Your task to perform on an android device: Open Amazon Image 0: 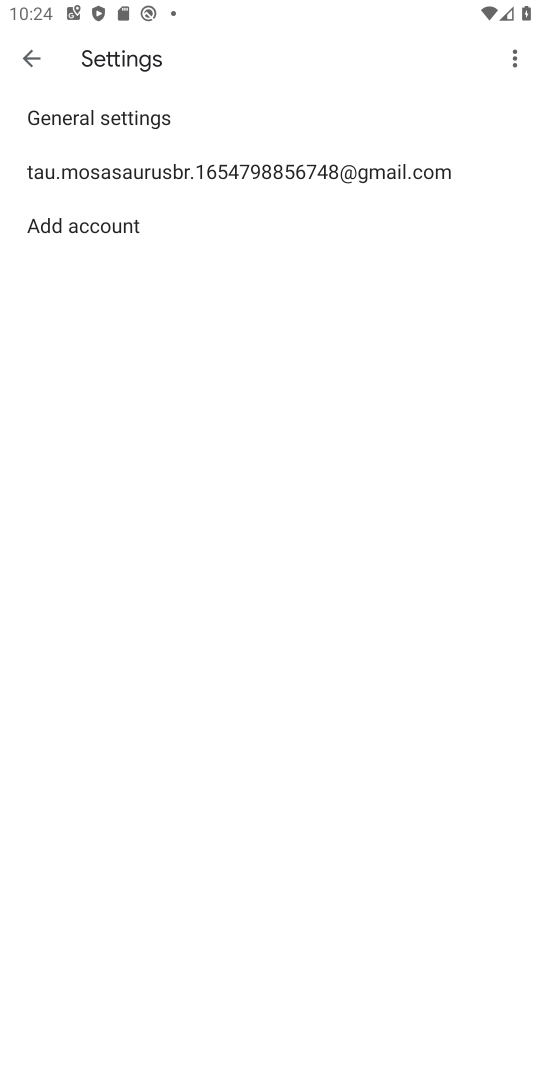
Step 0: press home button
Your task to perform on an android device: Open Amazon Image 1: 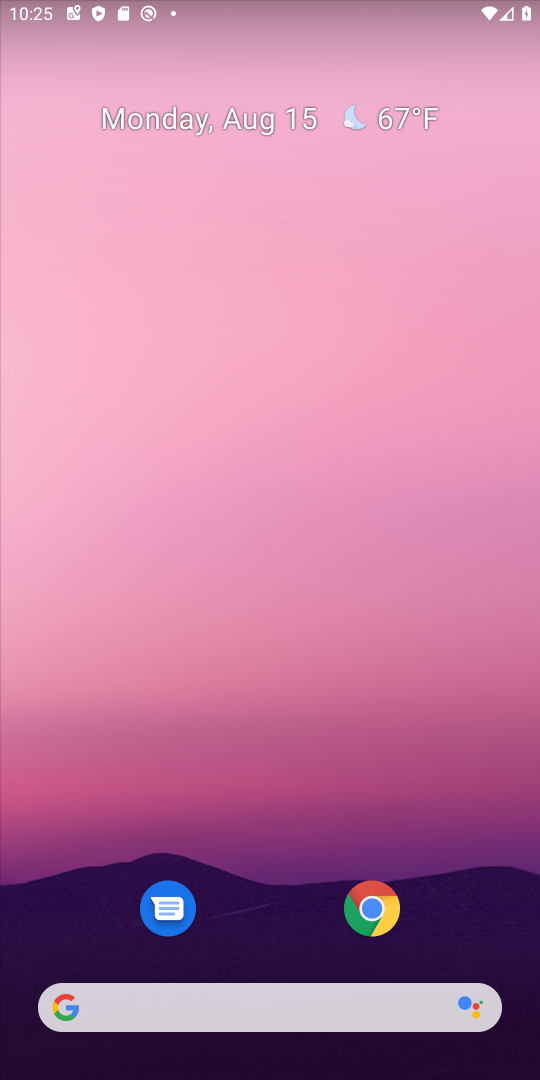
Step 1: click (378, 909)
Your task to perform on an android device: Open Amazon Image 2: 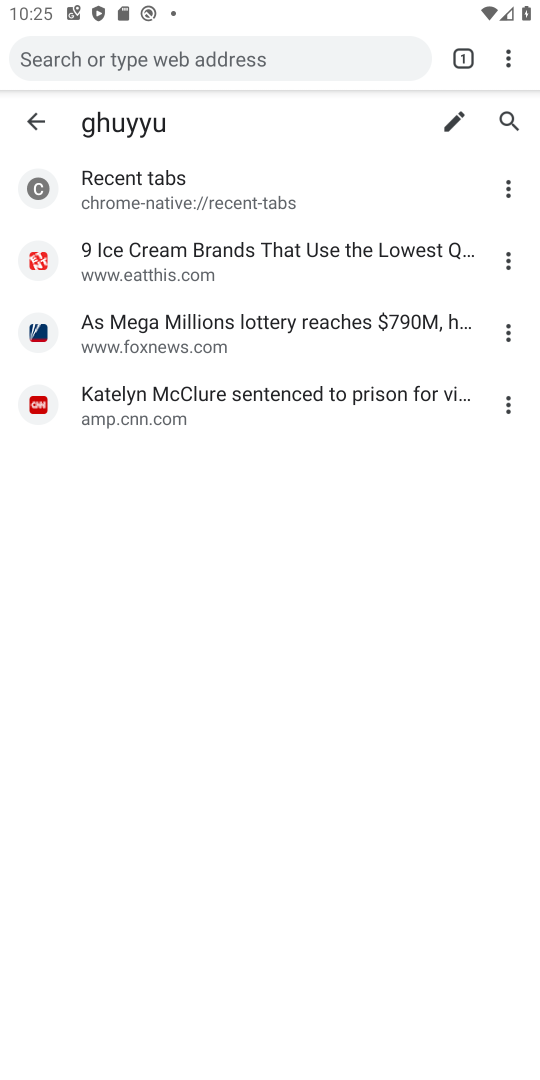
Step 2: click (465, 56)
Your task to perform on an android device: Open Amazon Image 3: 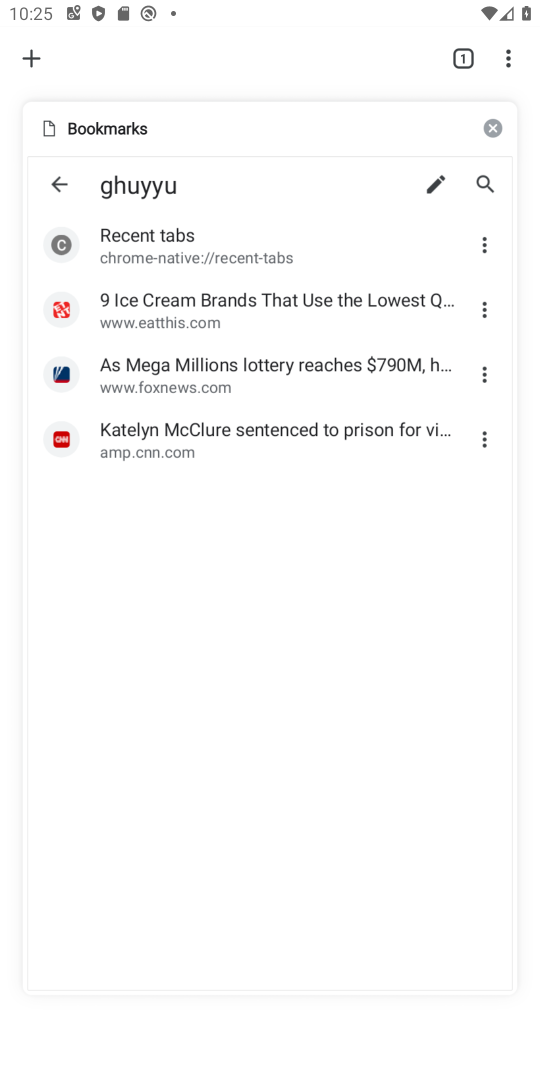
Step 3: click (26, 67)
Your task to perform on an android device: Open Amazon Image 4: 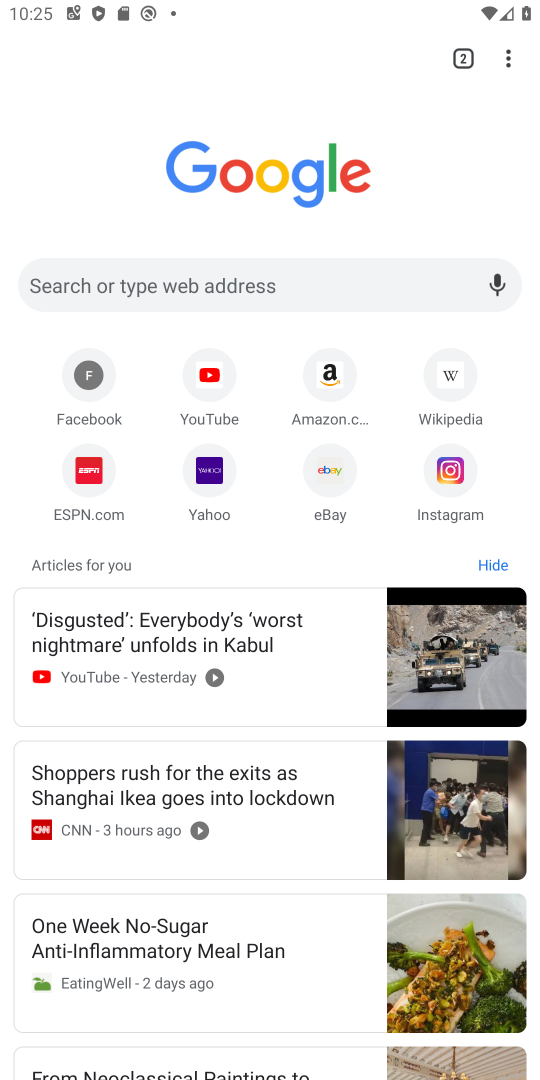
Step 4: click (343, 370)
Your task to perform on an android device: Open Amazon Image 5: 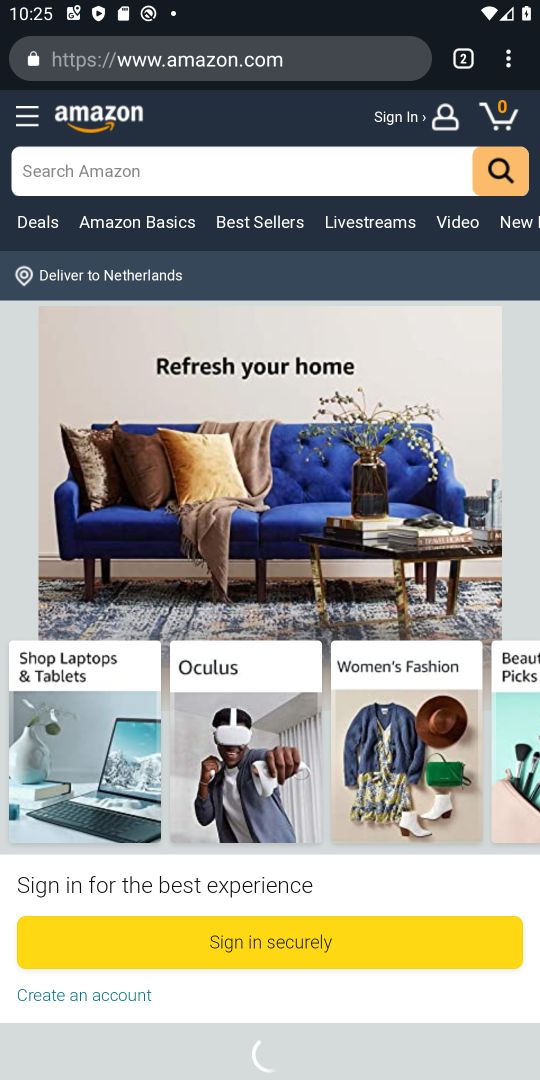
Step 5: task complete